Your task to perform on an android device: turn notification dots on Image 0: 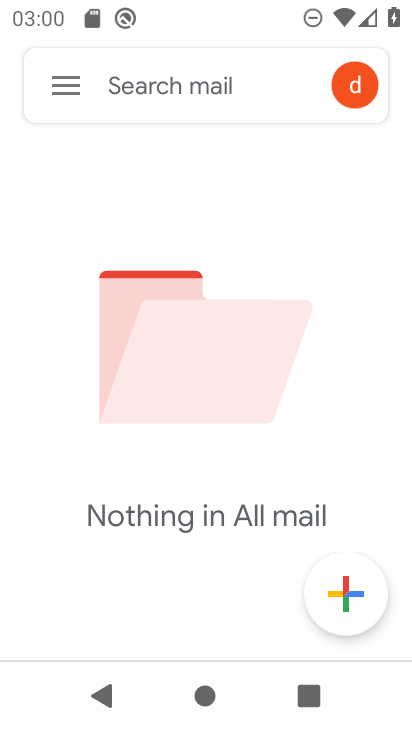
Step 0: drag from (263, 458) to (278, 138)
Your task to perform on an android device: turn notification dots on Image 1: 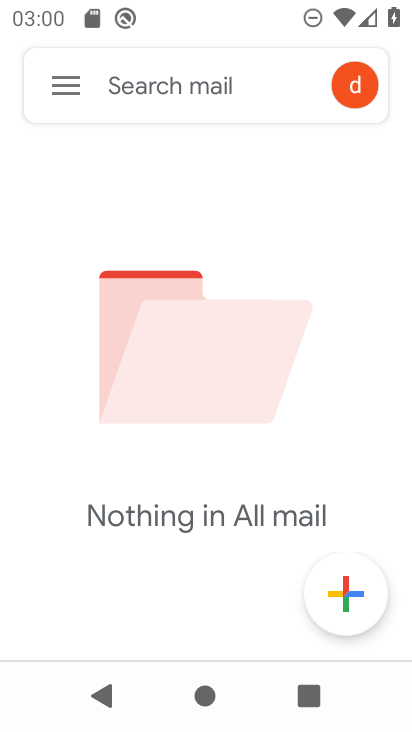
Step 1: press home button
Your task to perform on an android device: turn notification dots on Image 2: 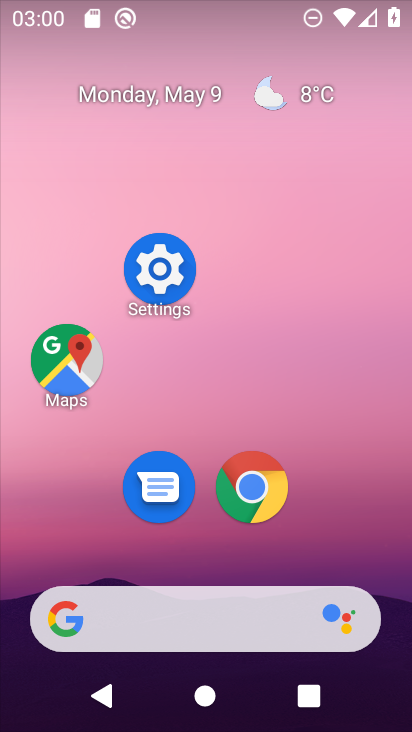
Step 2: click (176, 273)
Your task to perform on an android device: turn notification dots on Image 3: 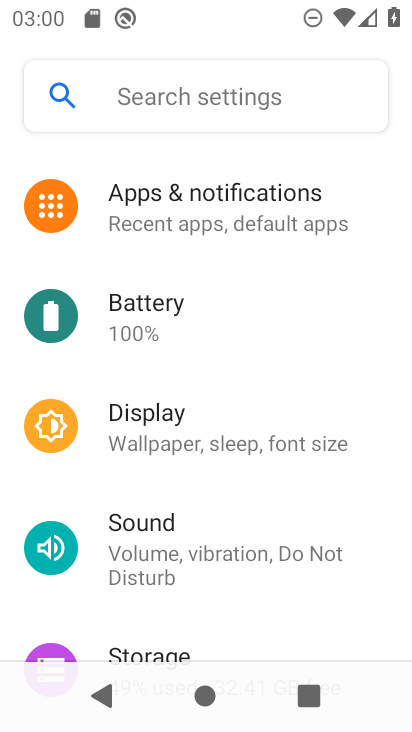
Step 3: click (168, 229)
Your task to perform on an android device: turn notification dots on Image 4: 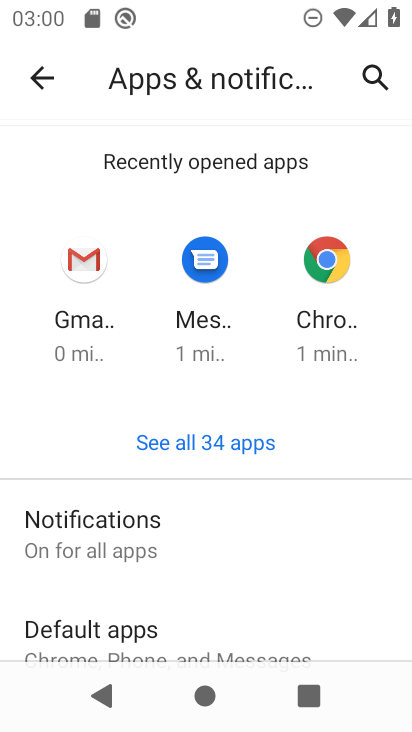
Step 4: click (181, 547)
Your task to perform on an android device: turn notification dots on Image 5: 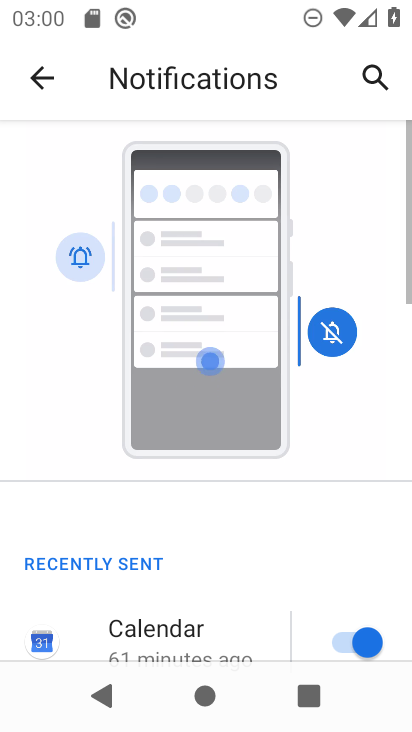
Step 5: drag from (191, 548) to (166, 102)
Your task to perform on an android device: turn notification dots on Image 6: 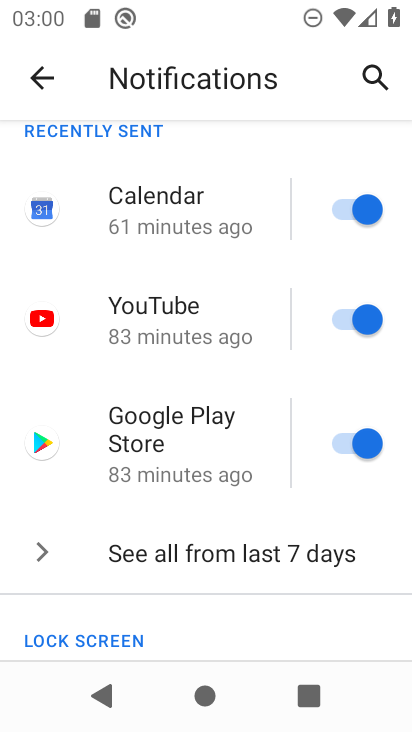
Step 6: drag from (205, 600) to (179, 96)
Your task to perform on an android device: turn notification dots on Image 7: 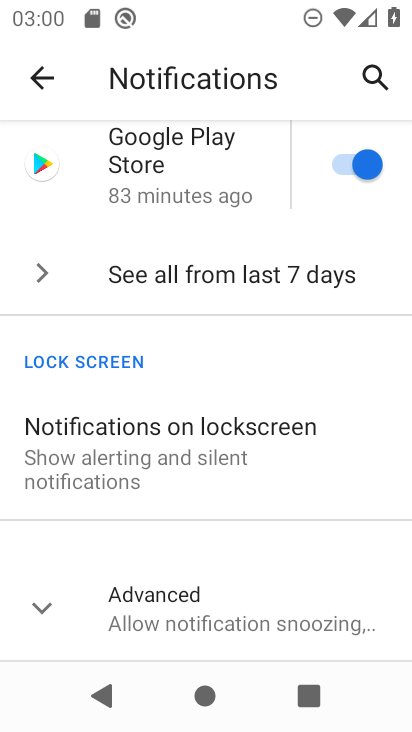
Step 7: click (192, 595)
Your task to perform on an android device: turn notification dots on Image 8: 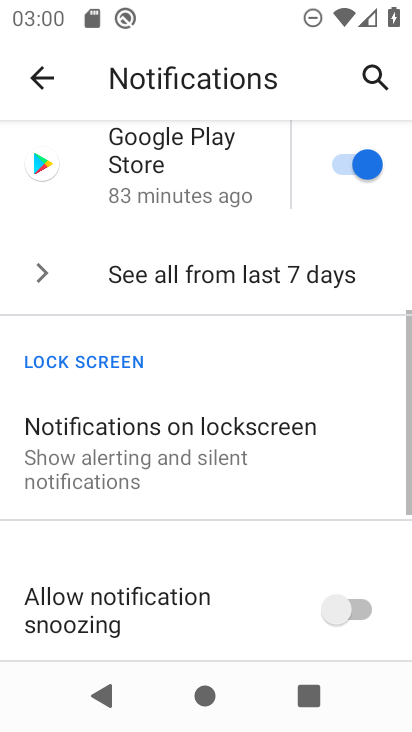
Step 8: task complete